Your task to perform on an android device: change keyboard looks Image 0: 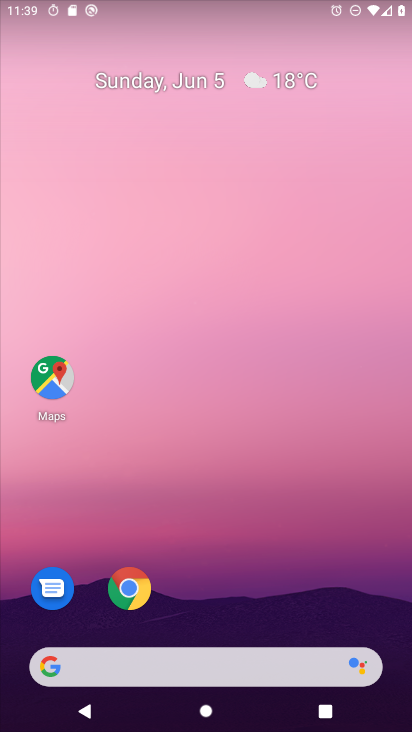
Step 0: drag from (357, 587) to (361, 193)
Your task to perform on an android device: change keyboard looks Image 1: 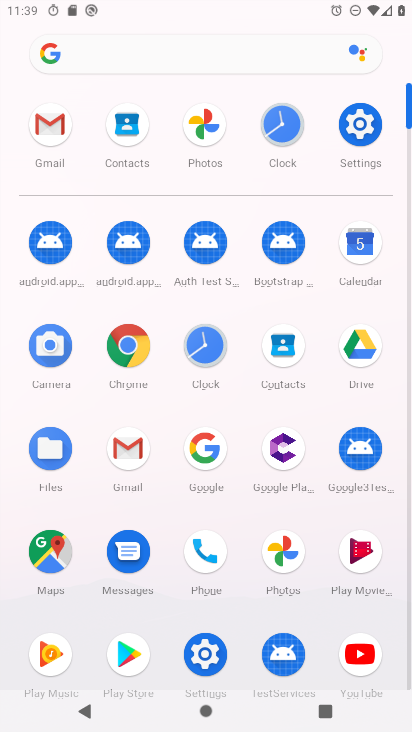
Step 1: click (367, 135)
Your task to perform on an android device: change keyboard looks Image 2: 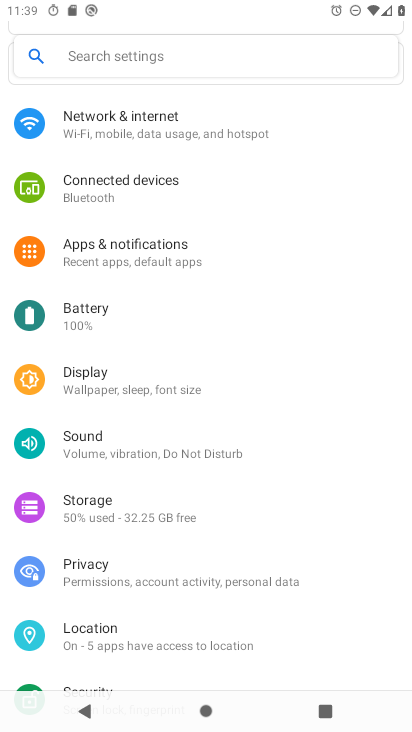
Step 2: drag from (364, 184) to (372, 376)
Your task to perform on an android device: change keyboard looks Image 3: 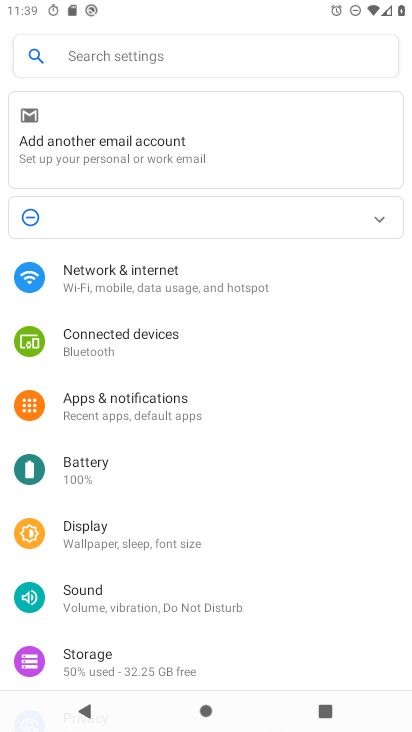
Step 3: drag from (351, 466) to (342, 348)
Your task to perform on an android device: change keyboard looks Image 4: 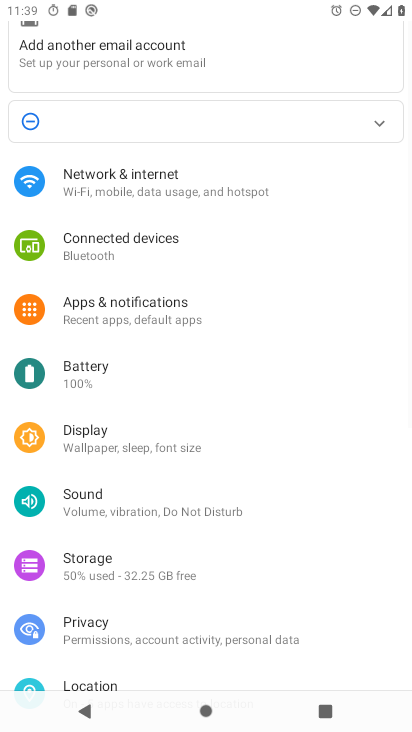
Step 4: drag from (331, 497) to (331, 351)
Your task to perform on an android device: change keyboard looks Image 5: 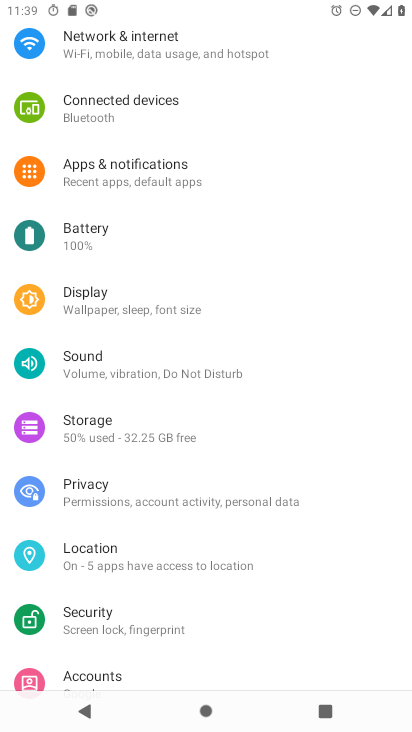
Step 5: drag from (328, 493) to (323, 350)
Your task to perform on an android device: change keyboard looks Image 6: 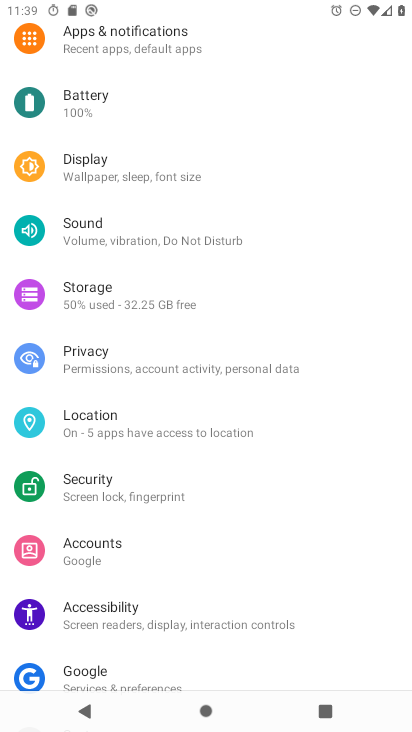
Step 6: drag from (324, 508) to (329, 358)
Your task to perform on an android device: change keyboard looks Image 7: 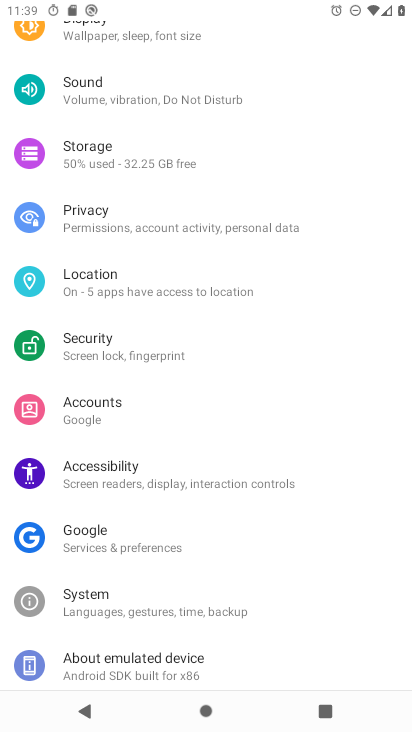
Step 7: drag from (337, 537) to (338, 435)
Your task to perform on an android device: change keyboard looks Image 8: 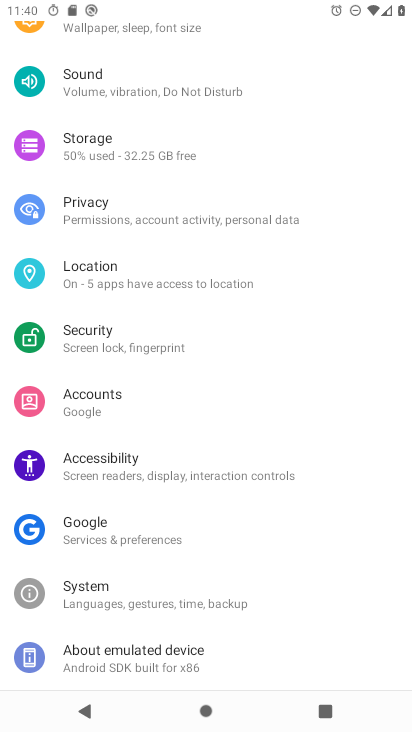
Step 8: click (244, 588)
Your task to perform on an android device: change keyboard looks Image 9: 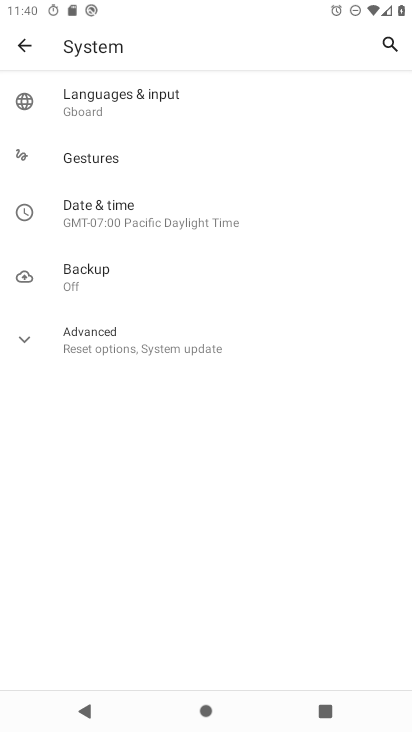
Step 9: click (118, 108)
Your task to perform on an android device: change keyboard looks Image 10: 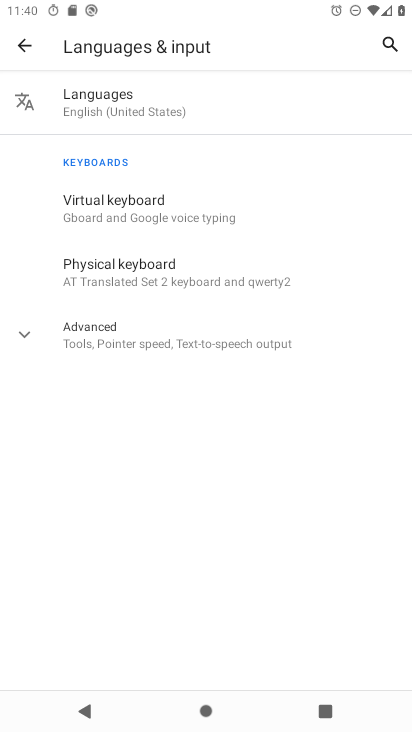
Step 10: click (149, 216)
Your task to perform on an android device: change keyboard looks Image 11: 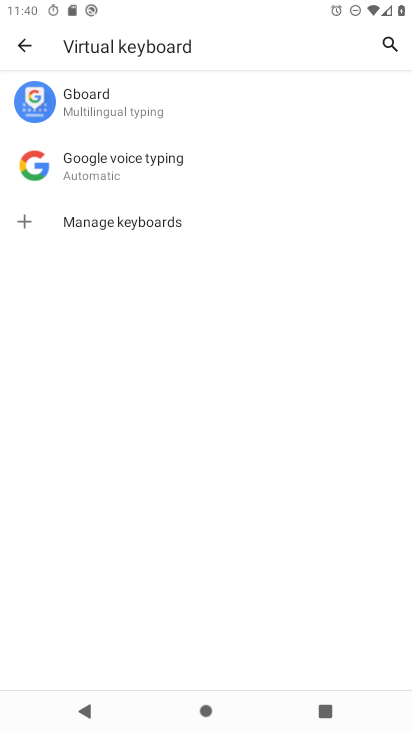
Step 11: click (142, 109)
Your task to perform on an android device: change keyboard looks Image 12: 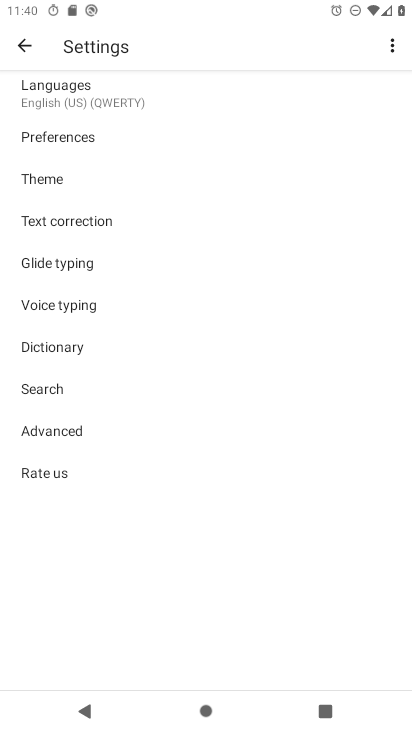
Step 12: click (113, 185)
Your task to perform on an android device: change keyboard looks Image 13: 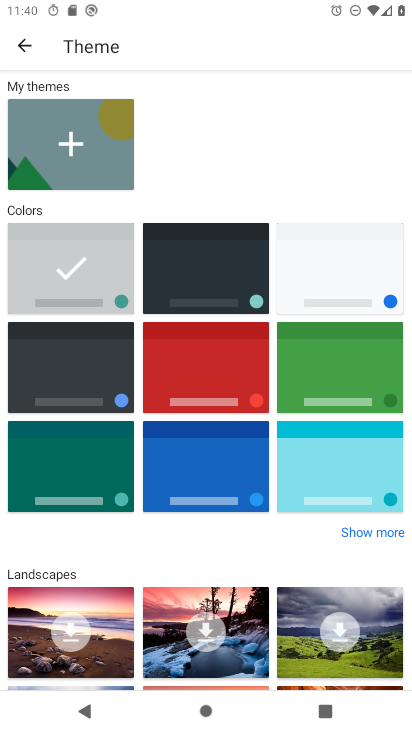
Step 13: click (208, 363)
Your task to perform on an android device: change keyboard looks Image 14: 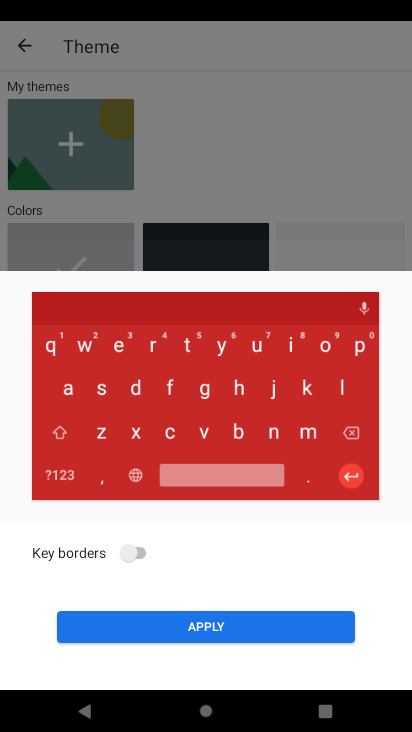
Step 14: click (261, 628)
Your task to perform on an android device: change keyboard looks Image 15: 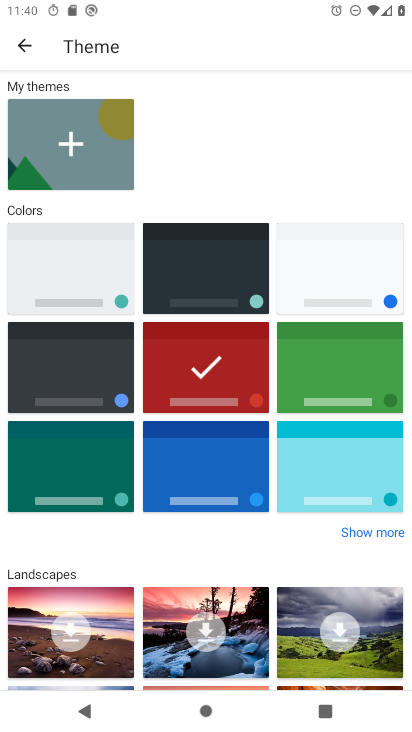
Step 15: task complete